Your task to perform on an android device: turn pop-ups on in chrome Image 0: 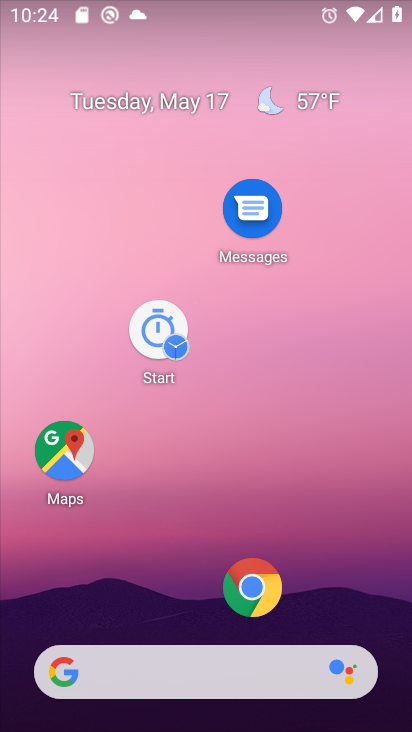
Step 0: drag from (351, 591) to (401, 307)
Your task to perform on an android device: turn pop-ups on in chrome Image 1: 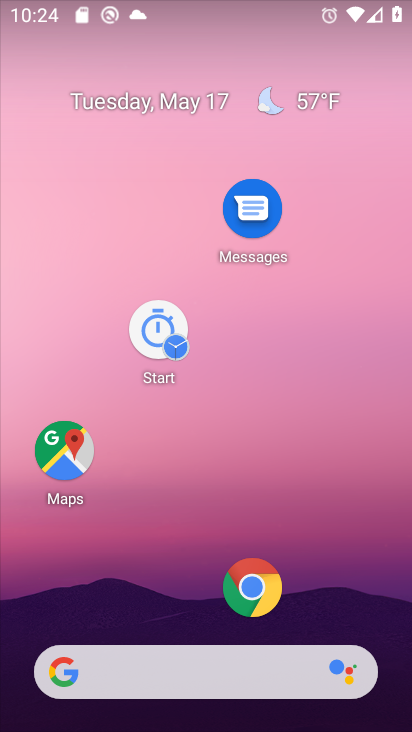
Step 1: click (138, 200)
Your task to perform on an android device: turn pop-ups on in chrome Image 2: 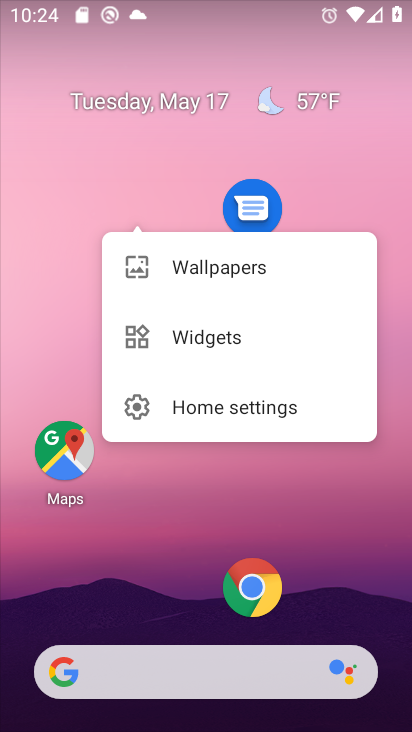
Step 2: click (297, 197)
Your task to perform on an android device: turn pop-ups on in chrome Image 3: 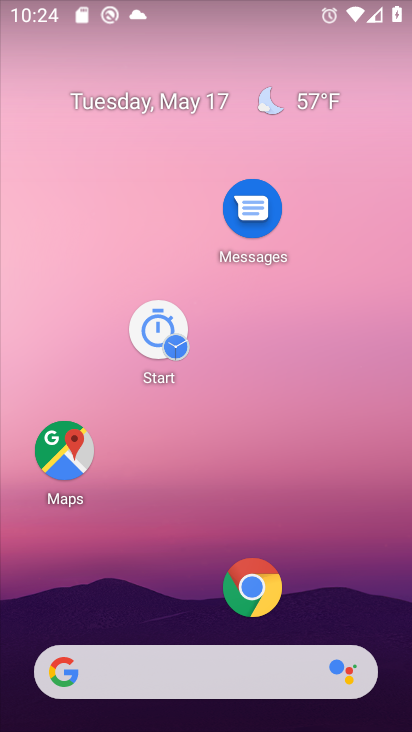
Step 3: drag from (289, 383) to (203, 16)
Your task to perform on an android device: turn pop-ups on in chrome Image 4: 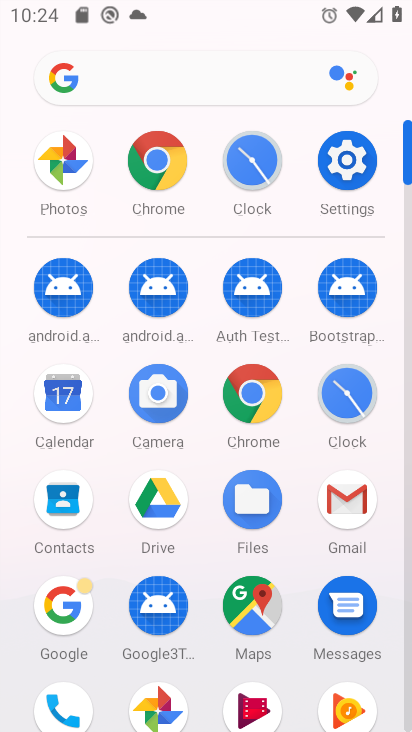
Step 4: click (140, 7)
Your task to perform on an android device: turn pop-ups on in chrome Image 5: 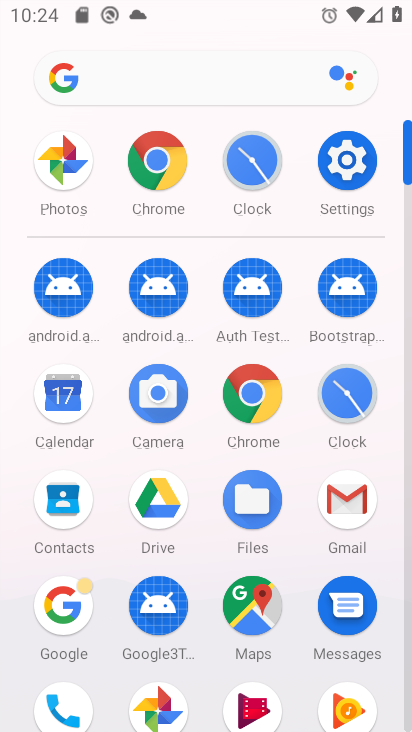
Step 5: click (286, 23)
Your task to perform on an android device: turn pop-ups on in chrome Image 6: 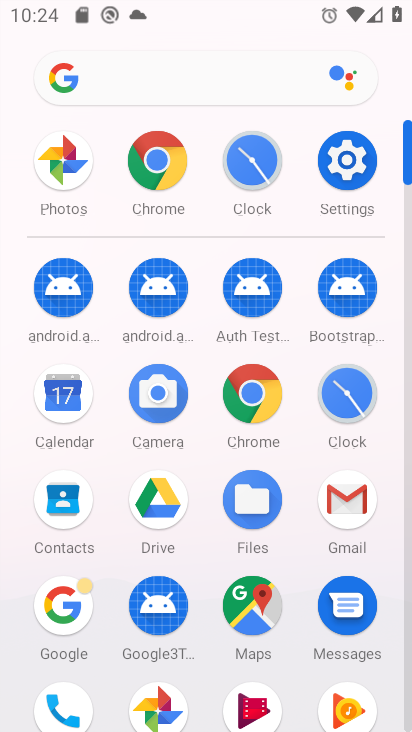
Step 6: drag from (273, 508) to (252, 171)
Your task to perform on an android device: turn pop-ups on in chrome Image 7: 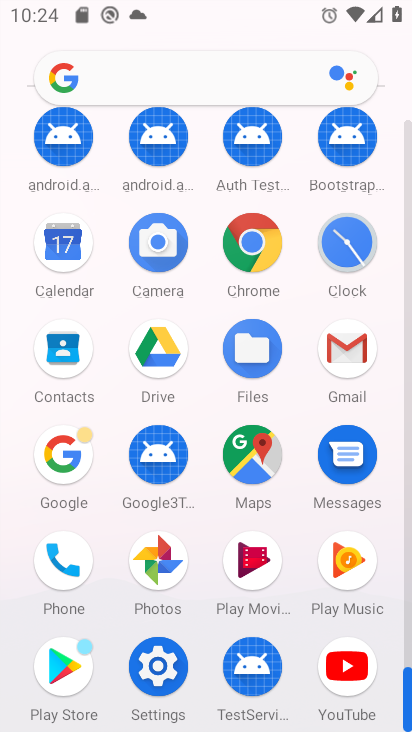
Step 7: drag from (272, 685) to (274, 224)
Your task to perform on an android device: turn pop-ups on in chrome Image 8: 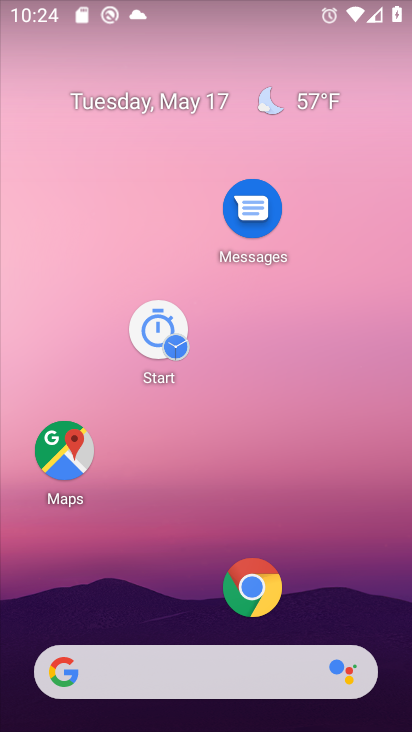
Step 8: click (295, 13)
Your task to perform on an android device: turn pop-ups on in chrome Image 9: 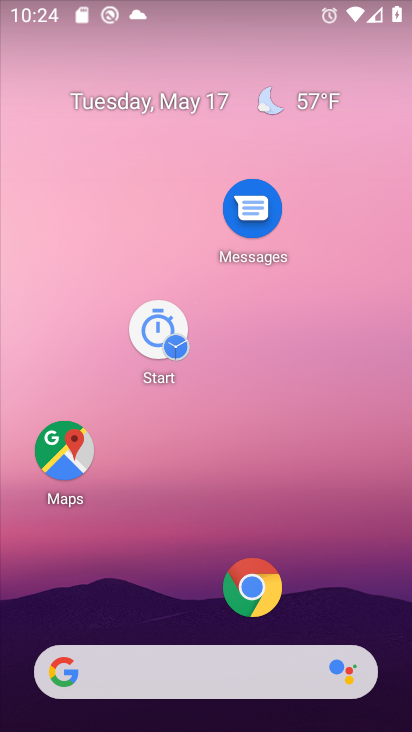
Step 9: drag from (218, 55) to (227, 0)
Your task to perform on an android device: turn pop-ups on in chrome Image 10: 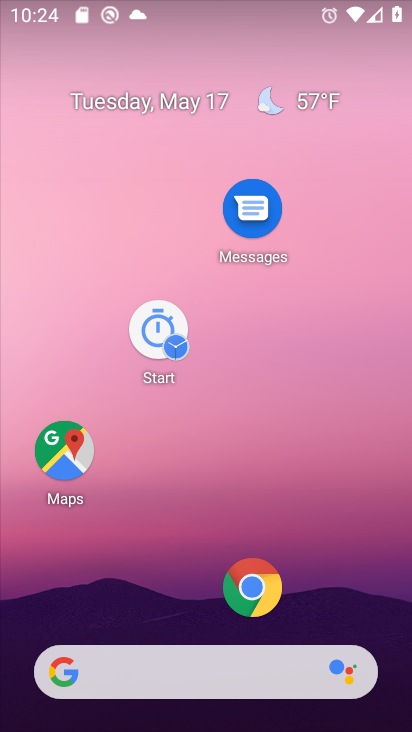
Step 10: drag from (251, 409) to (188, 8)
Your task to perform on an android device: turn pop-ups on in chrome Image 11: 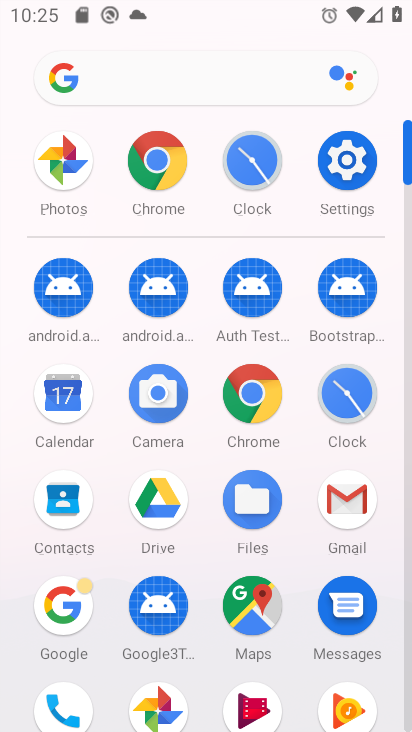
Step 11: click (156, 146)
Your task to perform on an android device: turn pop-ups on in chrome Image 12: 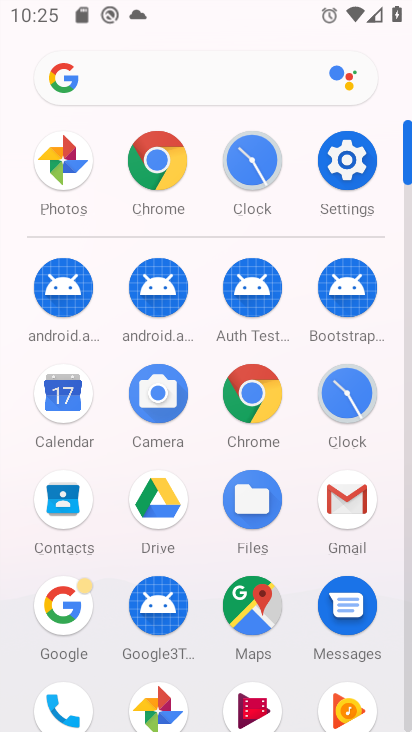
Step 12: click (248, 391)
Your task to perform on an android device: turn pop-ups on in chrome Image 13: 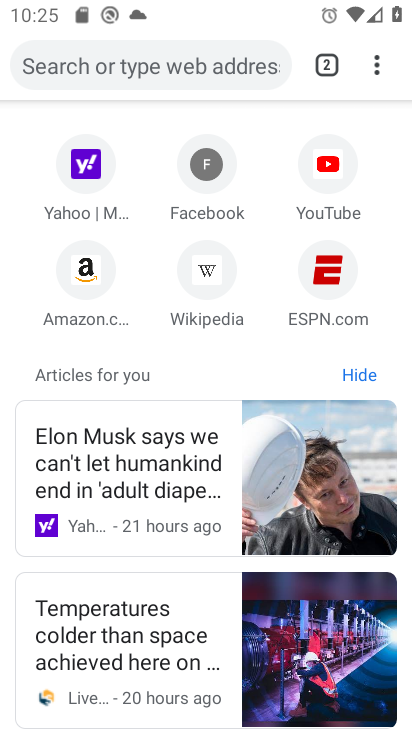
Step 13: click (255, 385)
Your task to perform on an android device: turn pop-ups on in chrome Image 14: 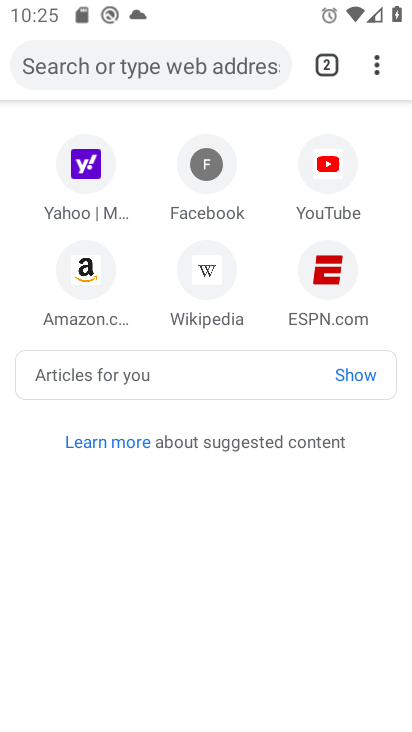
Step 14: click (255, 255)
Your task to perform on an android device: turn pop-ups on in chrome Image 15: 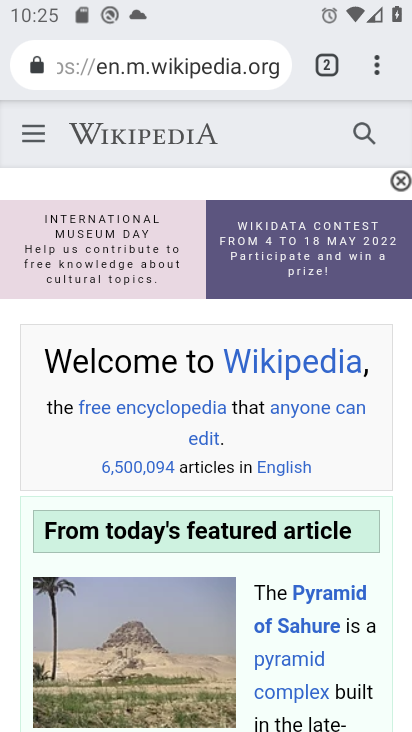
Step 15: drag from (256, 71) to (184, 38)
Your task to perform on an android device: turn pop-ups on in chrome Image 16: 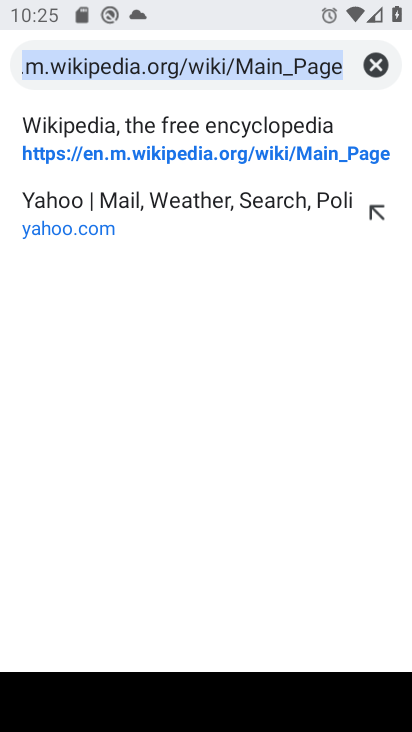
Step 16: drag from (264, 365) to (176, 1)
Your task to perform on an android device: turn pop-ups on in chrome Image 17: 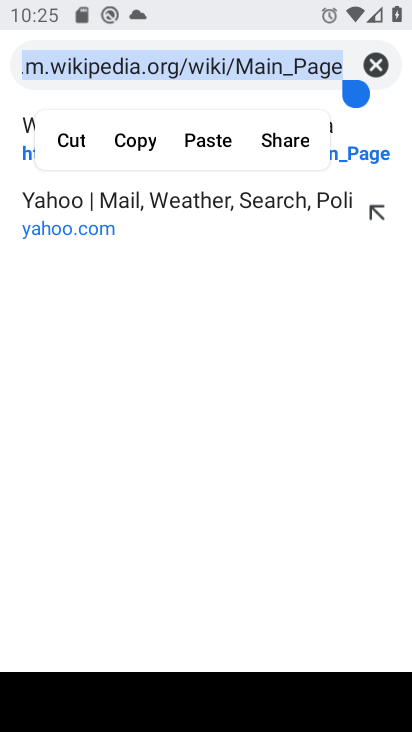
Step 17: drag from (238, 373) to (186, 108)
Your task to perform on an android device: turn pop-ups on in chrome Image 18: 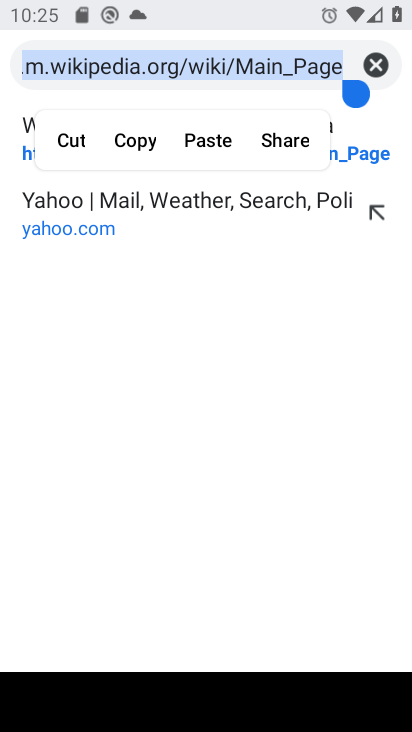
Step 18: drag from (262, 403) to (161, 31)
Your task to perform on an android device: turn pop-ups on in chrome Image 19: 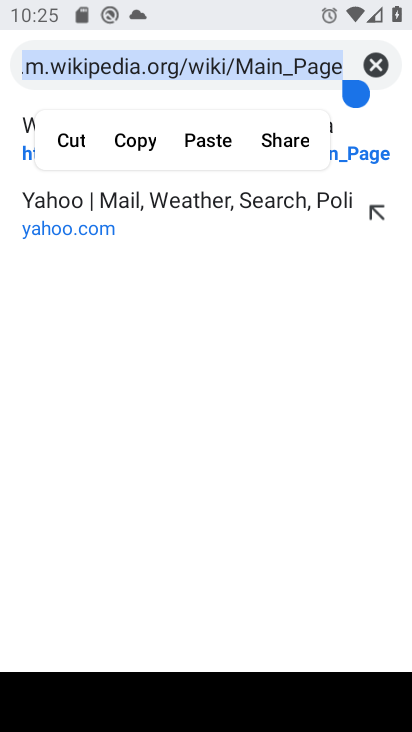
Step 19: drag from (173, 353) to (64, 61)
Your task to perform on an android device: turn pop-ups on in chrome Image 20: 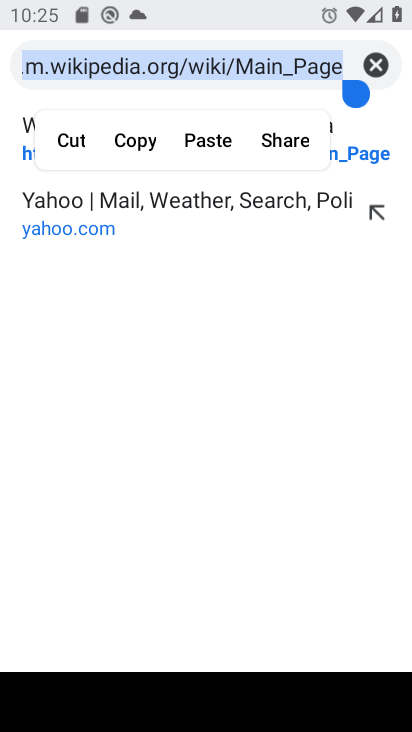
Step 20: drag from (257, 534) to (157, 83)
Your task to perform on an android device: turn pop-ups on in chrome Image 21: 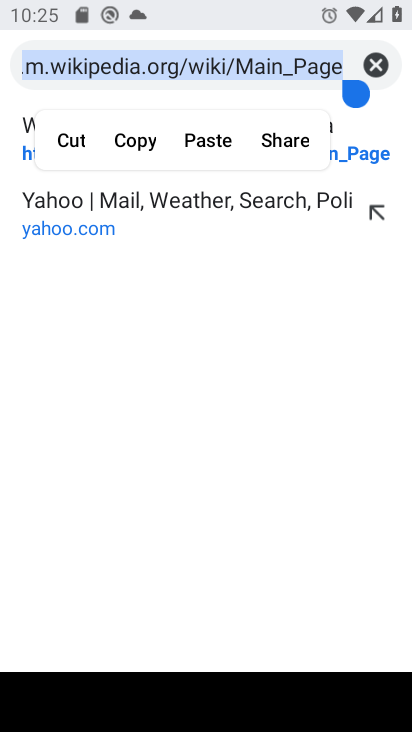
Step 21: click (151, 158)
Your task to perform on an android device: turn pop-ups on in chrome Image 22: 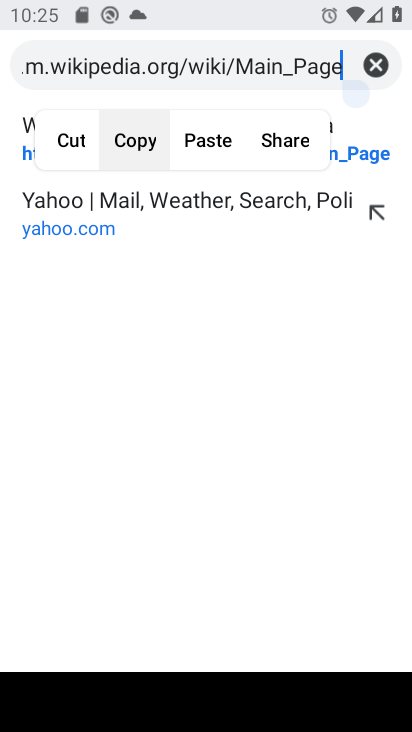
Step 22: click (151, 158)
Your task to perform on an android device: turn pop-ups on in chrome Image 23: 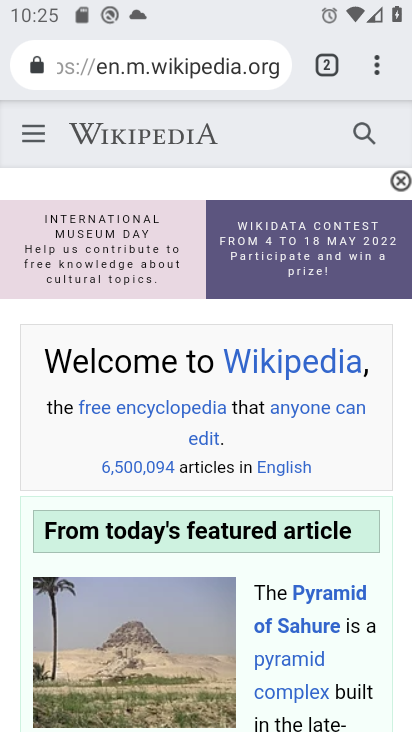
Step 23: click (376, 69)
Your task to perform on an android device: turn pop-ups on in chrome Image 24: 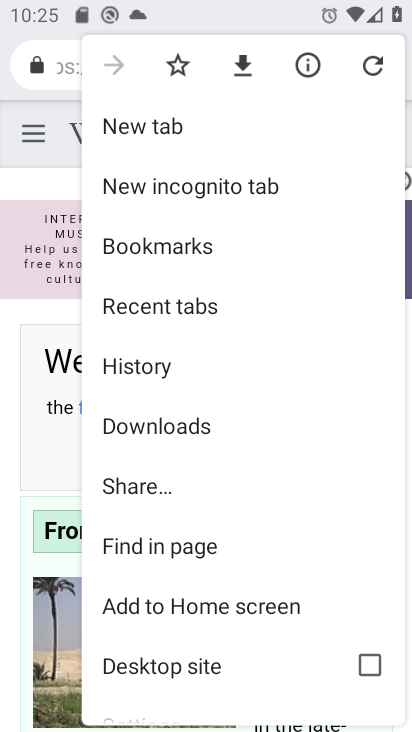
Step 24: click (360, 71)
Your task to perform on an android device: turn pop-ups on in chrome Image 25: 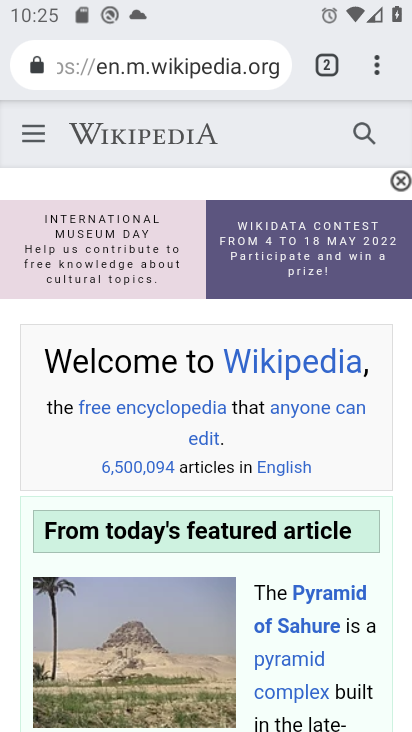
Step 25: drag from (378, 52) to (304, 269)
Your task to perform on an android device: turn pop-ups on in chrome Image 26: 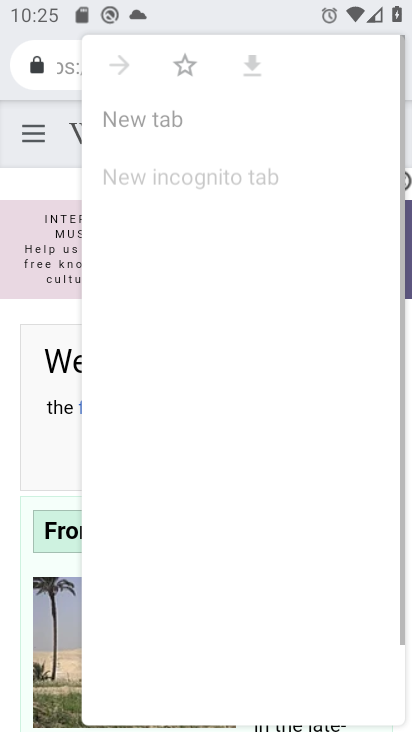
Step 26: click (306, 241)
Your task to perform on an android device: turn pop-ups on in chrome Image 27: 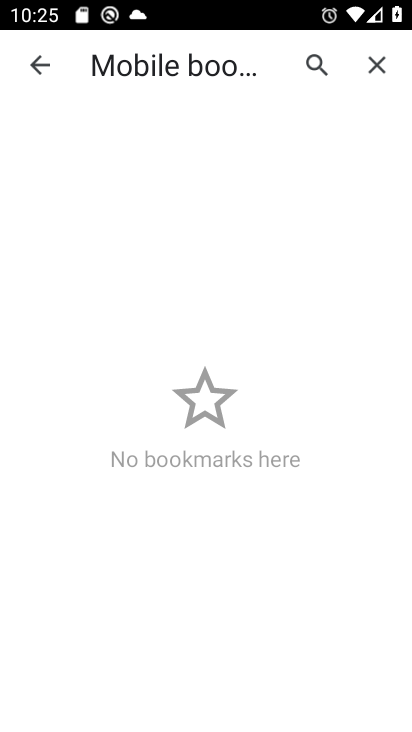
Step 27: click (388, 58)
Your task to perform on an android device: turn pop-ups on in chrome Image 28: 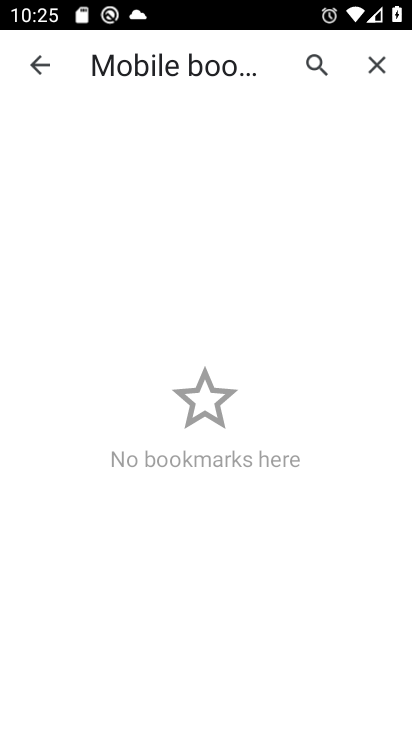
Step 28: click (362, 47)
Your task to perform on an android device: turn pop-ups on in chrome Image 29: 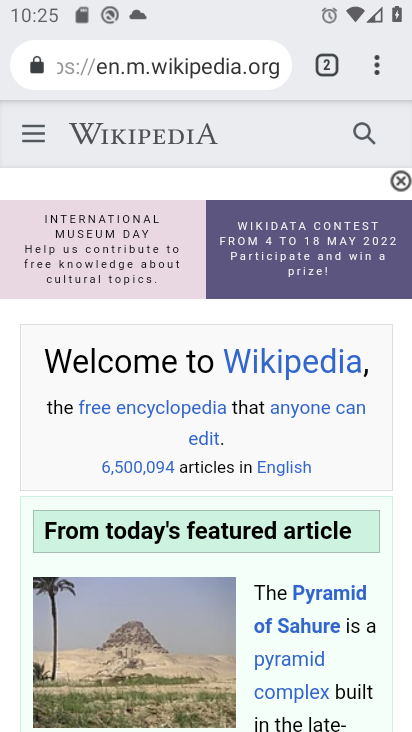
Step 29: drag from (177, 576) to (94, 171)
Your task to perform on an android device: turn pop-ups on in chrome Image 30: 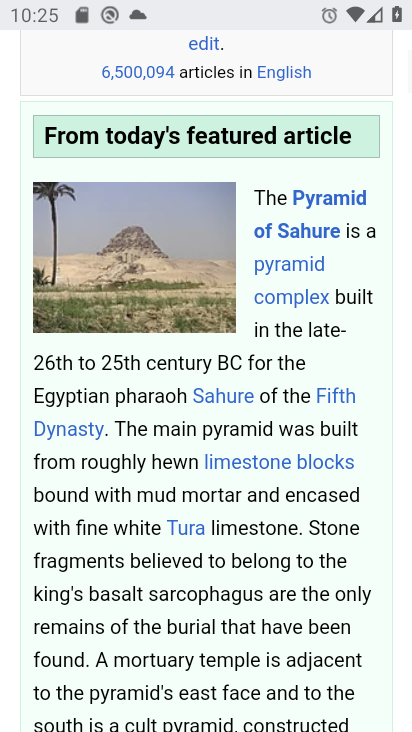
Step 30: drag from (203, 484) to (130, 183)
Your task to perform on an android device: turn pop-ups on in chrome Image 31: 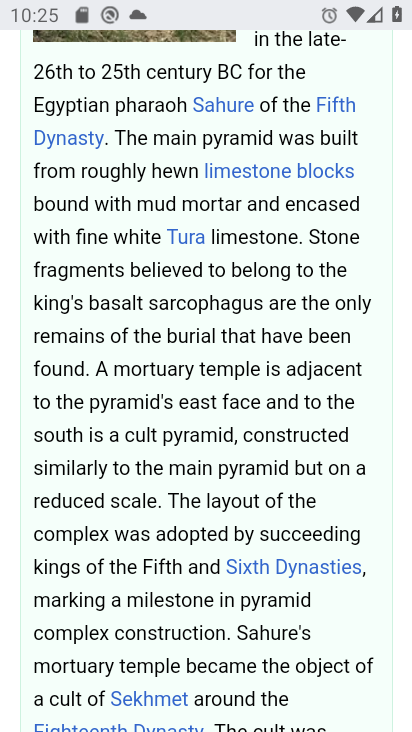
Step 31: click (374, 64)
Your task to perform on an android device: turn pop-ups on in chrome Image 32: 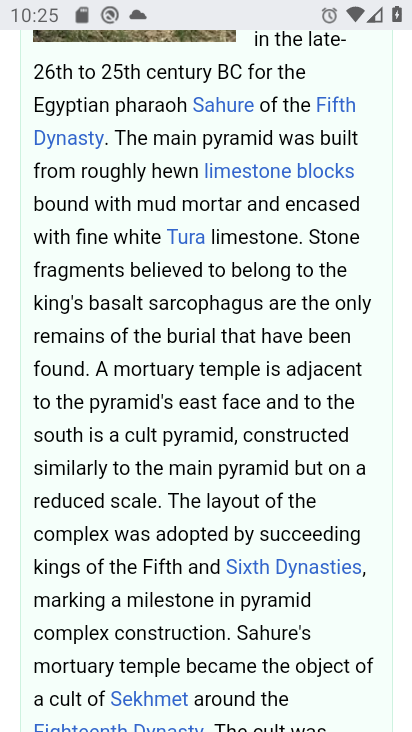
Step 32: click (375, 64)
Your task to perform on an android device: turn pop-ups on in chrome Image 33: 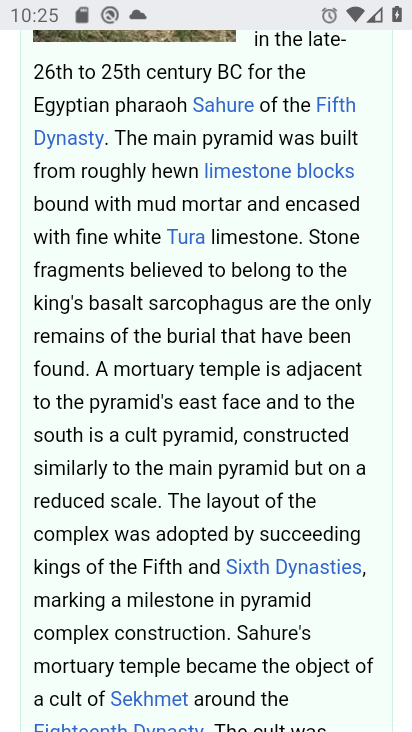
Step 33: click (34, 62)
Your task to perform on an android device: turn pop-ups on in chrome Image 34: 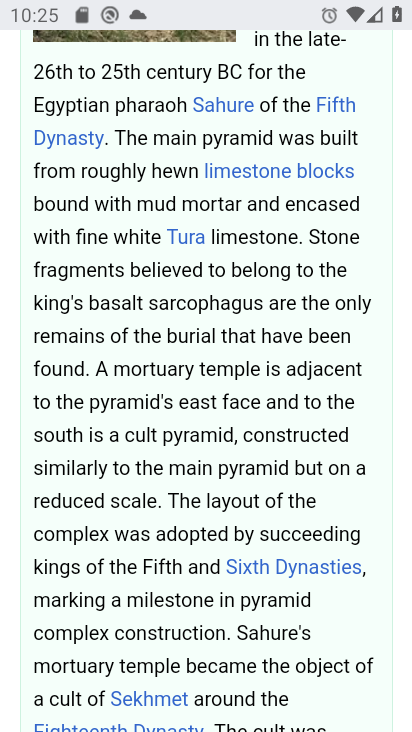
Step 34: press back button
Your task to perform on an android device: turn pop-ups on in chrome Image 35: 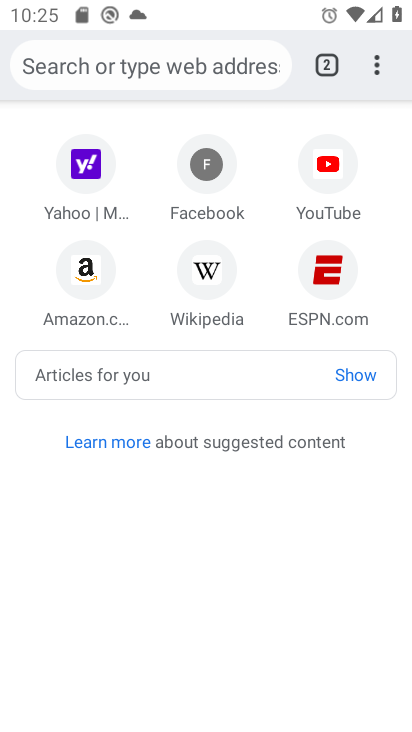
Step 35: press home button
Your task to perform on an android device: turn pop-ups on in chrome Image 36: 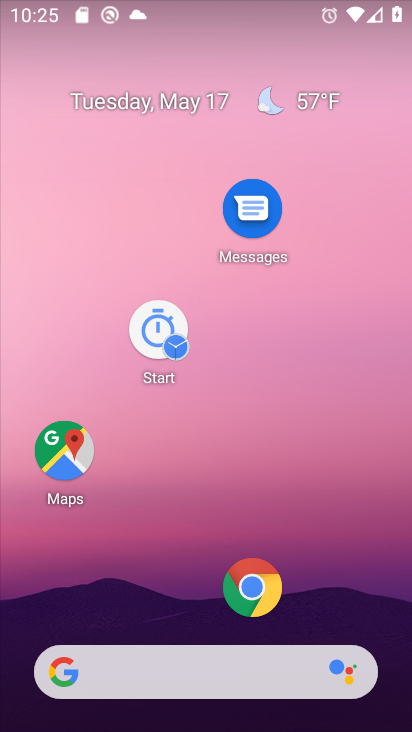
Step 36: drag from (341, 579) to (202, 135)
Your task to perform on an android device: turn pop-ups on in chrome Image 37: 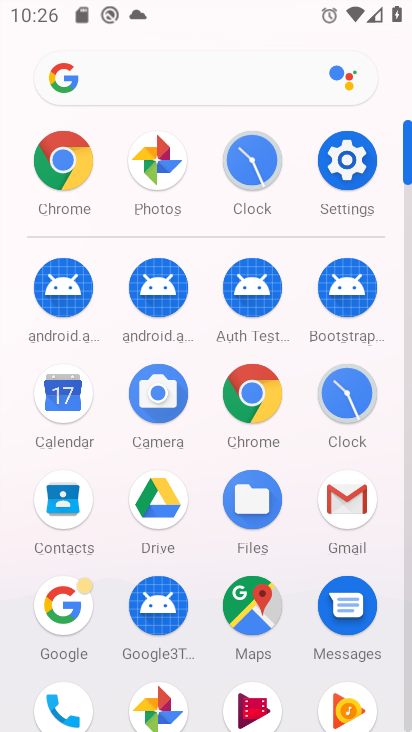
Step 37: click (254, 386)
Your task to perform on an android device: turn pop-ups on in chrome Image 38: 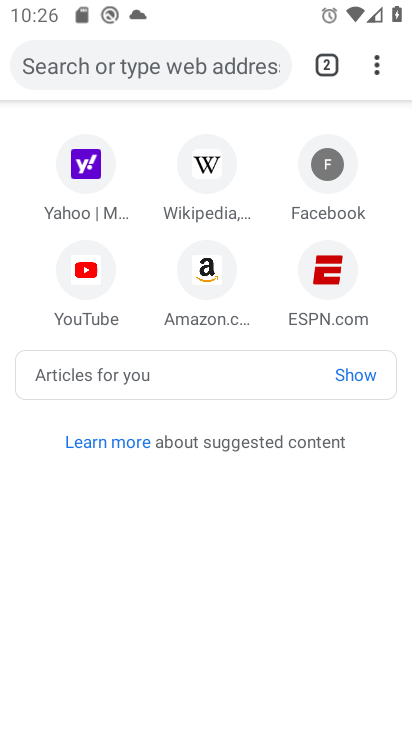
Step 38: click (258, 383)
Your task to perform on an android device: turn pop-ups on in chrome Image 39: 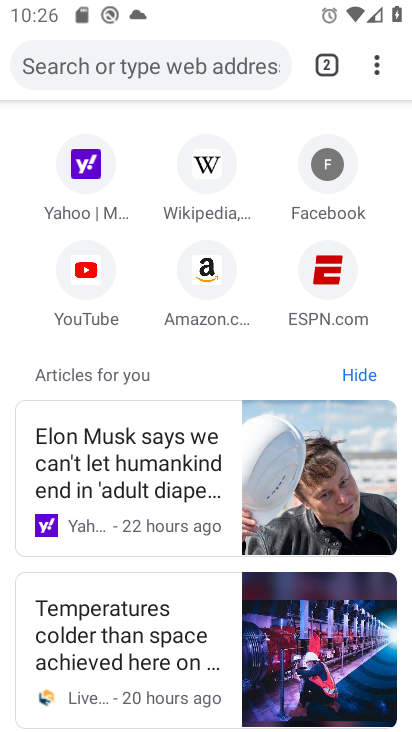
Step 39: click (376, 69)
Your task to perform on an android device: turn pop-ups on in chrome Image 40: 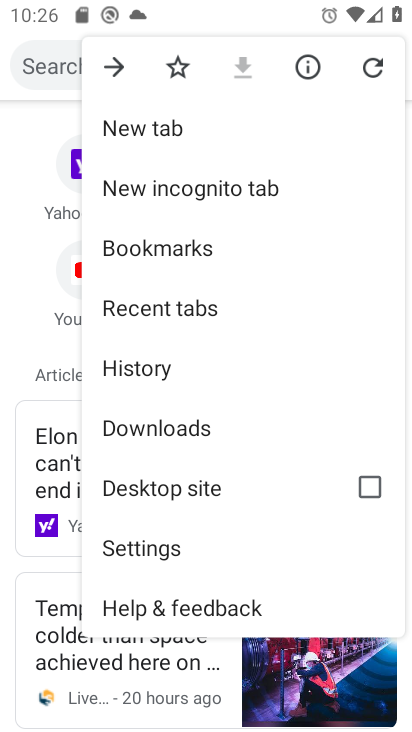
Step 40: click (129, 543)
Your task to perform on an android device: turn pop-ups on in chrome Image 41: 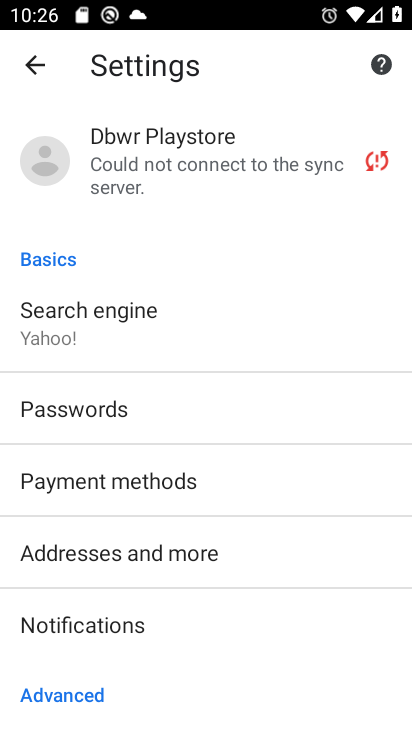
Step 41: drag from (147, 557) to (95, 199)
Your task to perform on an android device: turn pop-ups on in chrome Image 42: 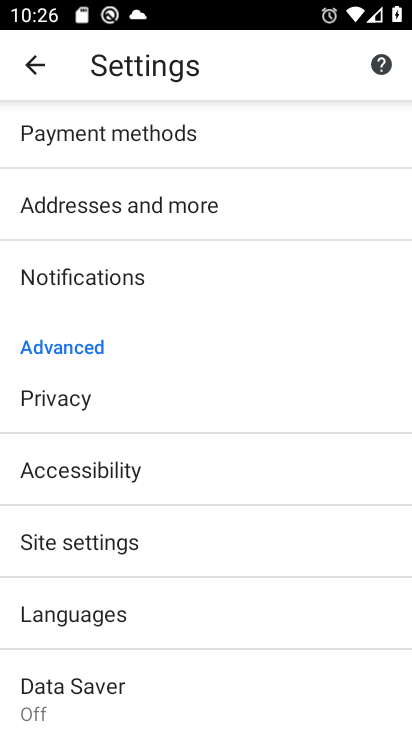
Step 42: drag from (178, 496) to (174, 153)
Your task to perform on an android device: turn pop-ups on in chrome Image 43: 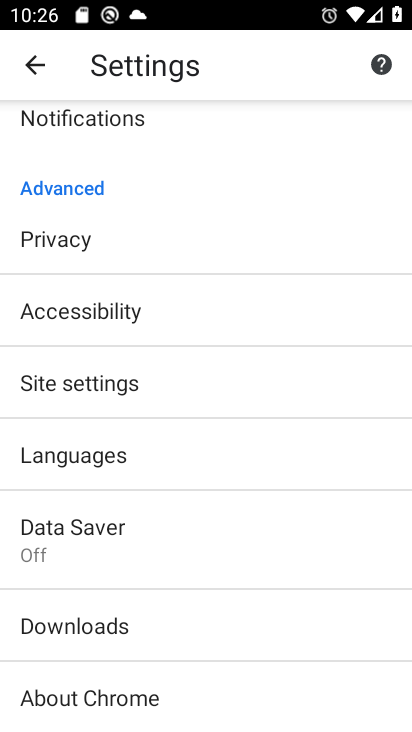
Step 43: click (68, 388)
Your task to perform on an android device: turn pop-ups on in chrome Image 44: 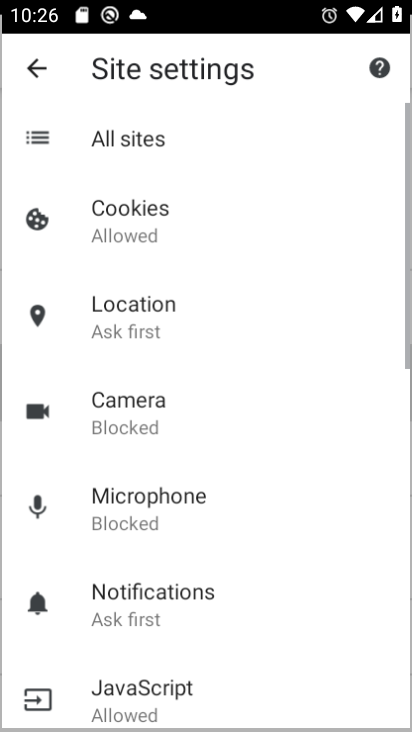
Step 44: click (68, 388)
Your task to perform on an android device: turn pop-ups on in chrome Image 45: 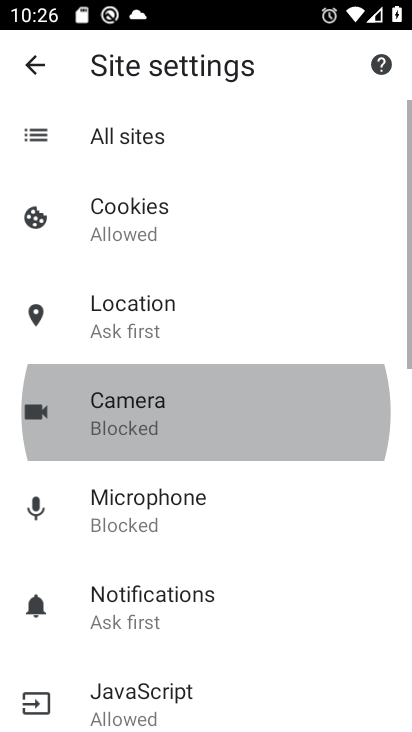
Step 45: click (68, 388)
Your task to perform on an android device: turn pop-ups on in chrome Image 46: 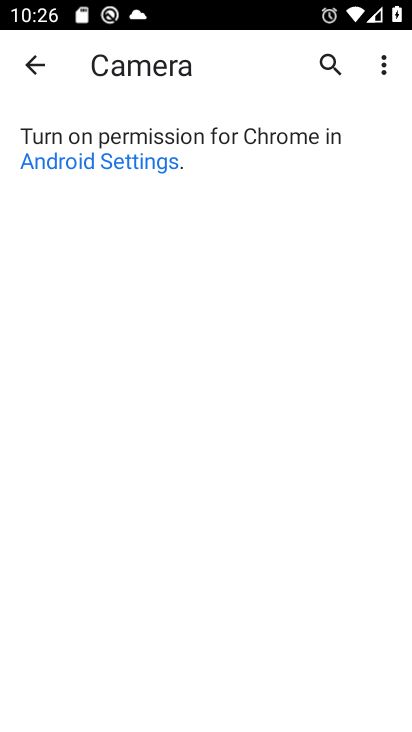
Step 46: click (26, 64)
Your task to perform on an android device: turn pop-ups on in chrome Image 47: 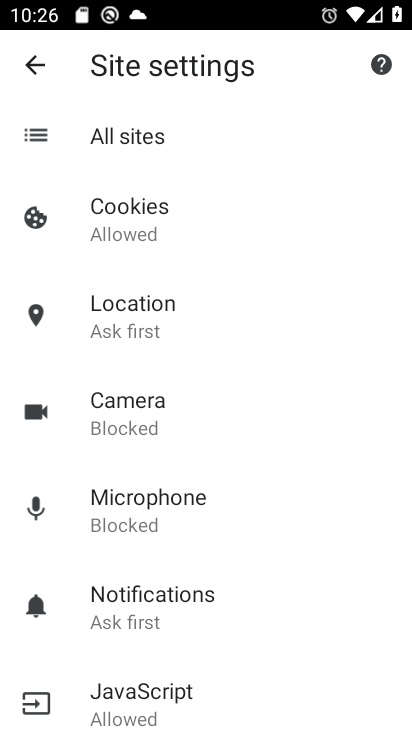
Step 47: drag from (153, 606) to (90, 276)
Your task to perform on an android device: turn pop-ups on in chrome Image 48: 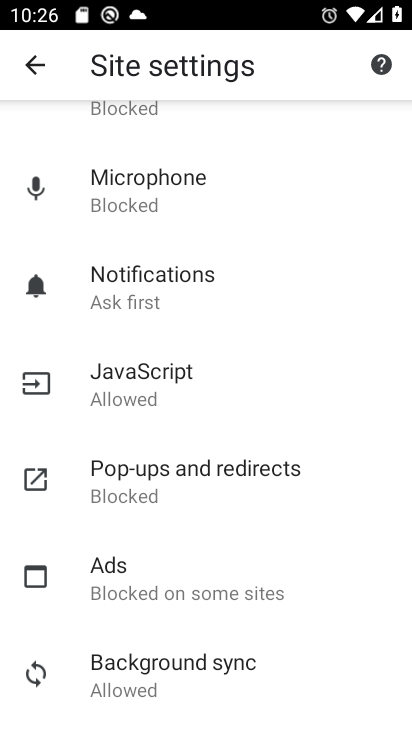
Step 48: click (116, 488)
Your task to perform on an android device: turn pop-ups on in chrome Image 49: 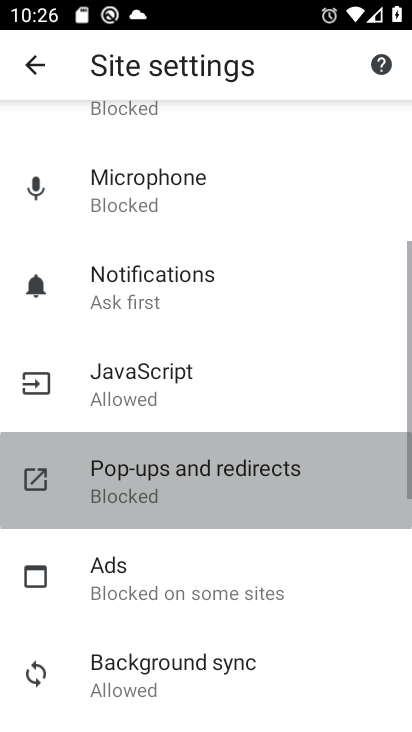
Step 49: click (117, 486)
Your task to perform on an android device: turn pop-ups on in chrome Image 50: 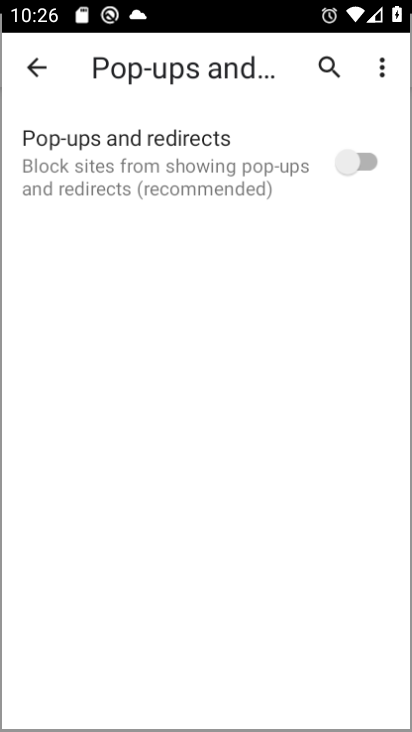
Step 50: click (117, 486)
Your task to perform on an android device: turn pop-ups on in chrome Image 51: 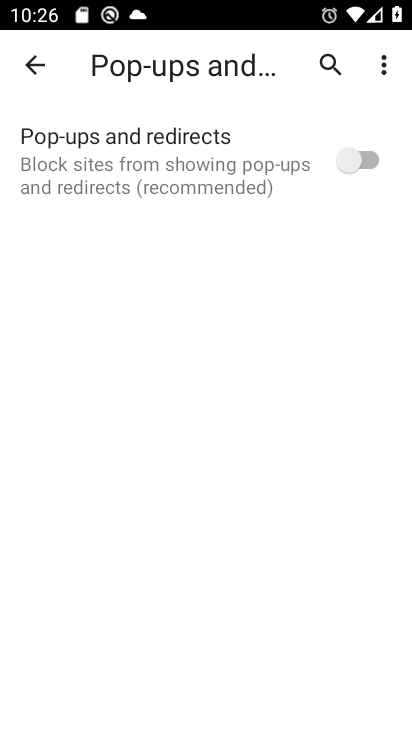
Step 51: click (120, 485)
Your task to perform on an android device: turn pop-ups on in chrome Image 52: 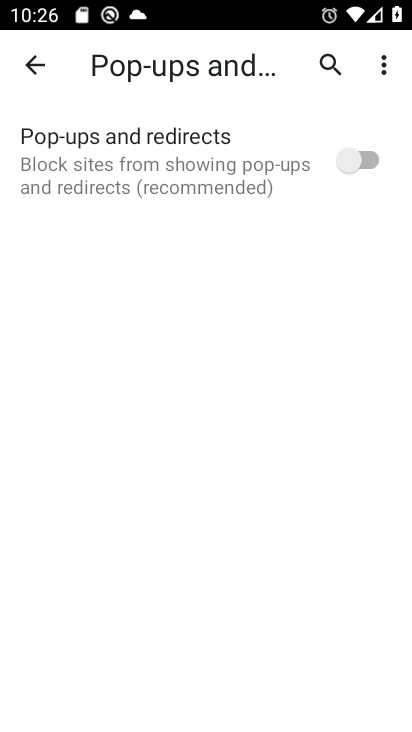
Step 52: click (348, 162)
Your task to perform on an android device: turn pop-ups on in chrome Image 53: 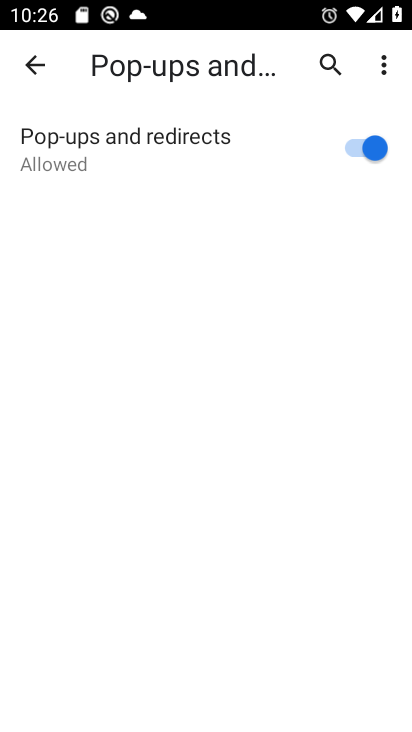
Step 53: task complete